Your task to perform on an android device: open chrome privacy settings Image 0: 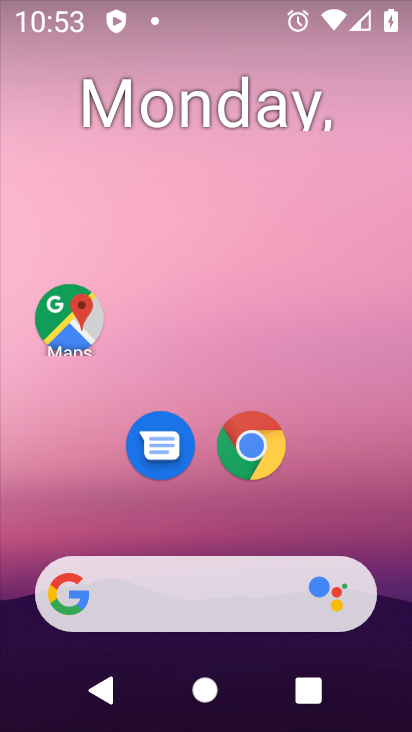
Step 0: click (263, 463)
Your task to perform on an android device: open chrome privacy settings Image 1: 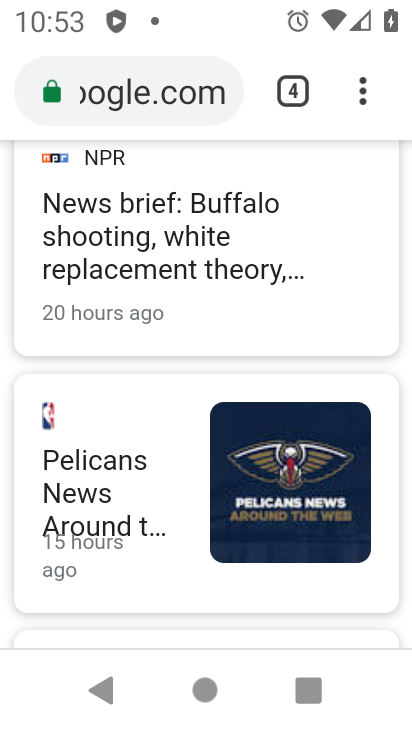
Step 1: click (364, 93)
Your task to perform on an android device: open chrome privacy settings Image 2: 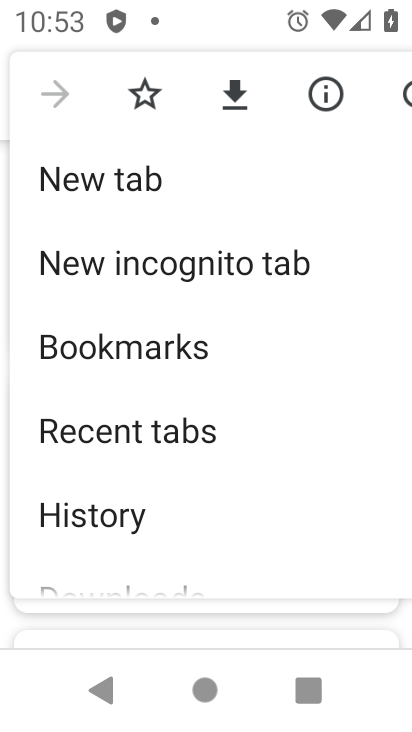
Step 2: drag from (141, 537) to (158, 225)
Your task to perform on an android device: open chrome privacy settings Image 3: 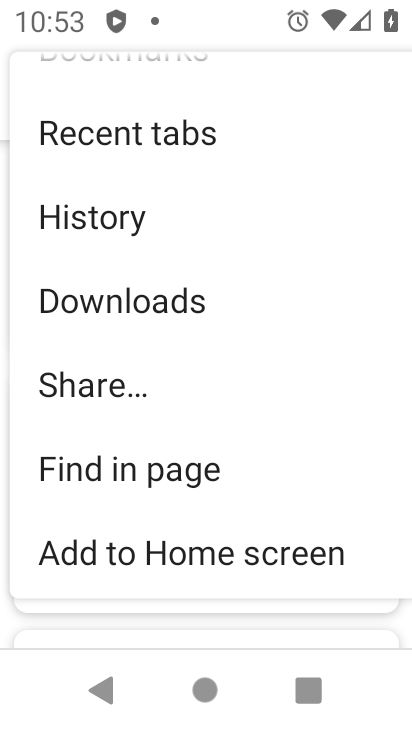
Step 3: drag from (109, 550) to (114, 321)
Your task to perform on an android device: open chrome privacy settings Image 4: 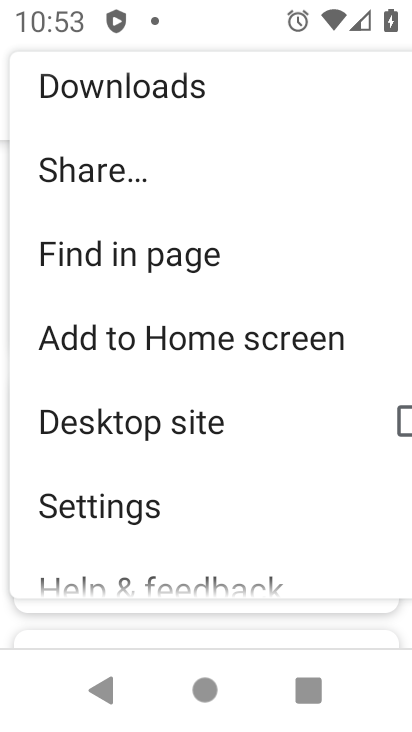
Step 4: click (107, 499)
Your task to perform on an android device: open chrome privacy settings Image 5: 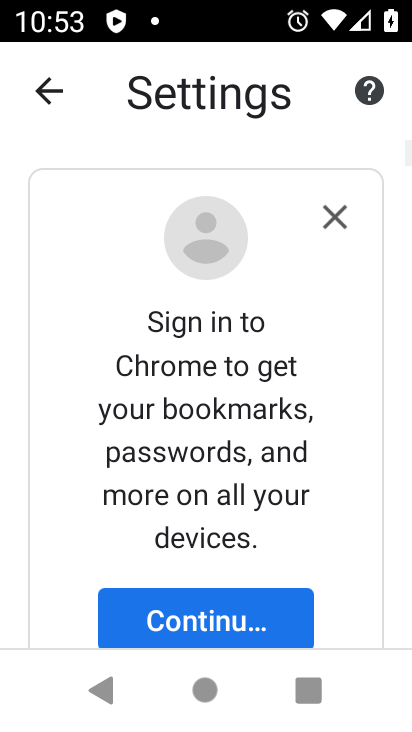
Step 5: drag from (331, 613) to (321, 280)
Your task to perform on an android device: open chrome privacy settings Image 6: 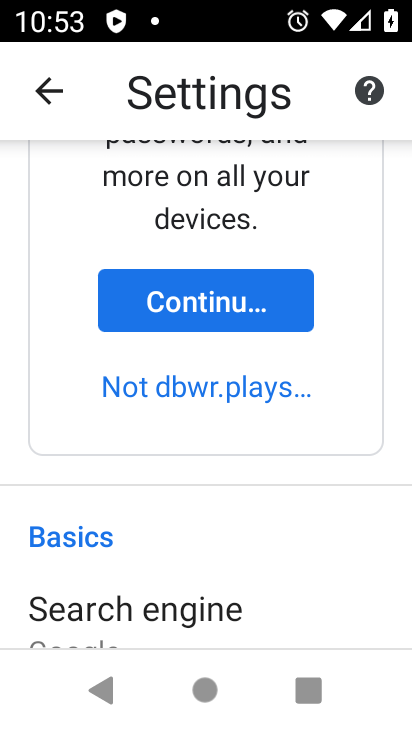
Step 6: drag from (156, 625) to (183, 235)
Your task to perform on an android device: open chrome privacy settings Image 7: 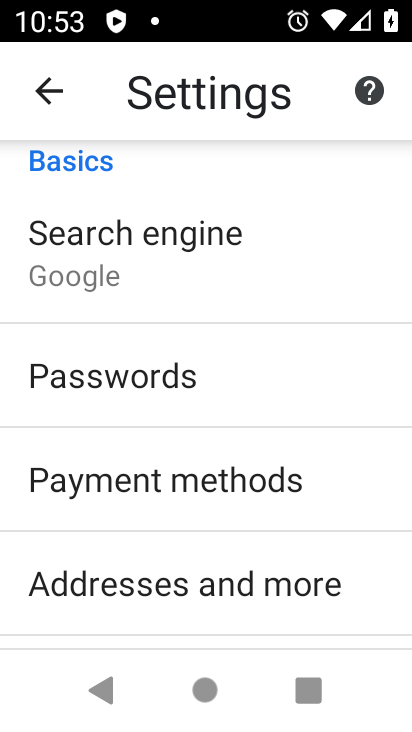
Step 7: drag from (184, 586) to (175, 210)
Your task to perform on an android device: open chrome privacy settings Image 8: 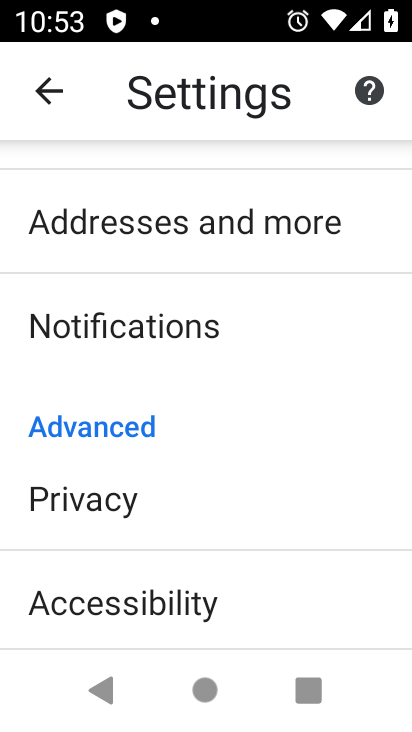
Step 8: click (87, 497)
Your task to perform on an android device: open chrome privacy settings Image 9: 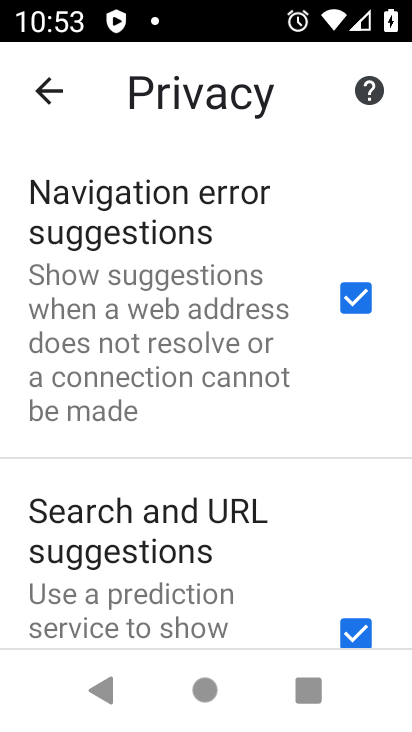
Step 9: task complete